Your task to perform on an android device: Open Youtube and go to "Your channel" Image 0: 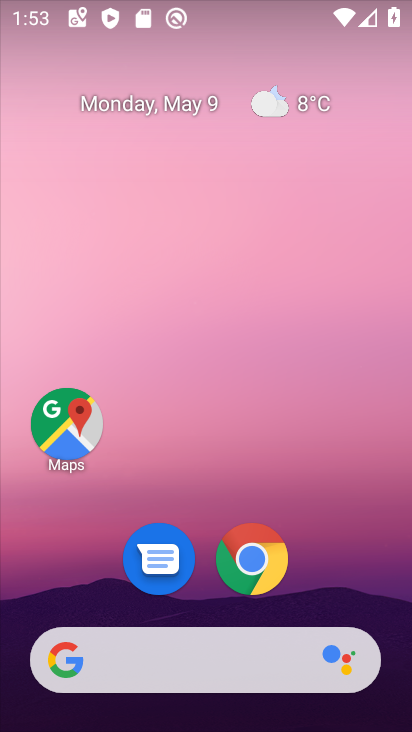
Step 0: drag from (320, 573) to (225, 140)
Your task to perform on an android device: Open Youtube and go to "Your channel" Image 1: 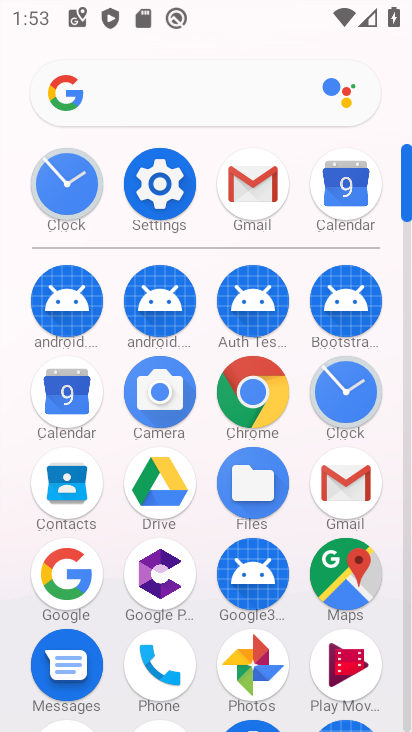
Step 1: click (404, 639)
Your task to perform on an android device: Open Youtube and go to "Your channel" Image 2: 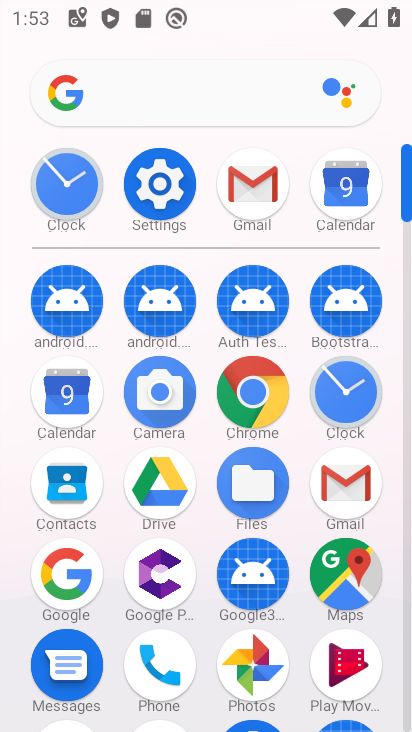
Step 2: click (404, 639)
Your task to perform on an android device: Open Youtube and go to "Your channel" Image 3: 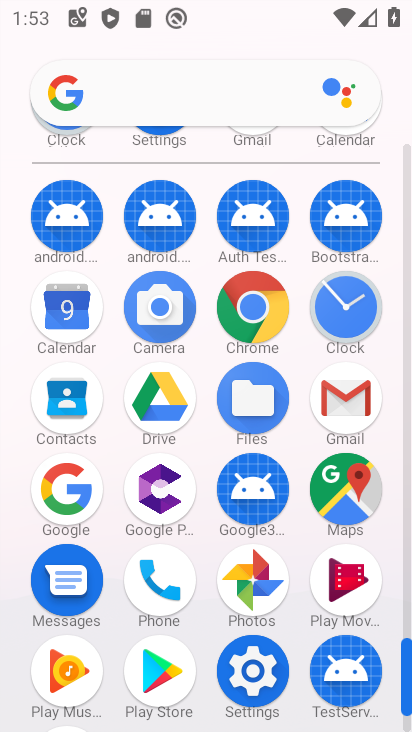
Step 3: drag from (220, 560) to (180, 182)
Your task to perform on an android device: Open Youtube and go to "Your channel" Image 4: 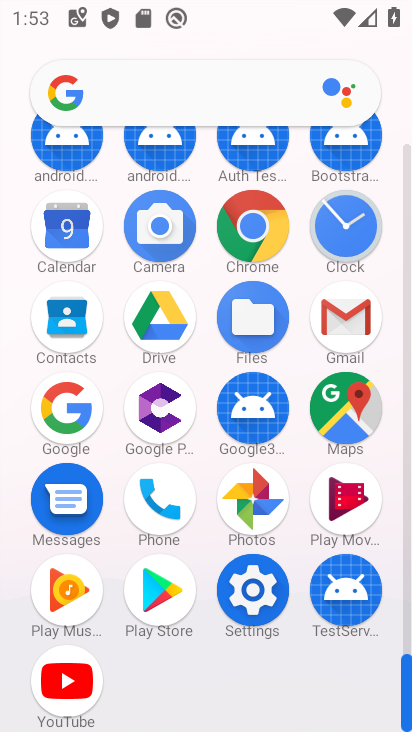
Step 4: click (58, 676)
Your task to perform on an android device: Open Youtube and go to "Your channel" Image 5: 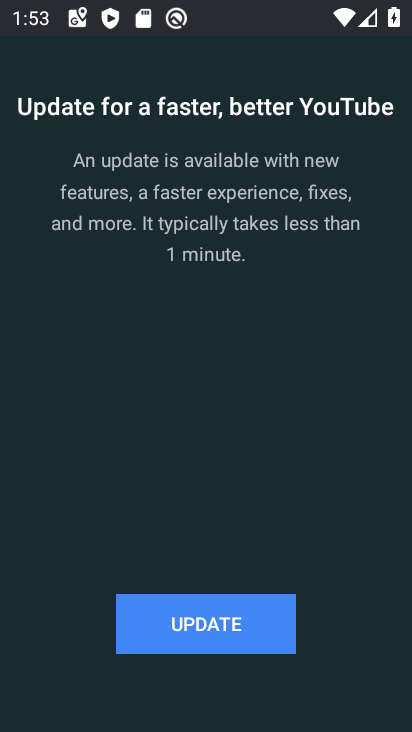
Step 5: click (192, 635)
Your task to perform on an android device: Open Youtube and go to "Your channel" Image 6: 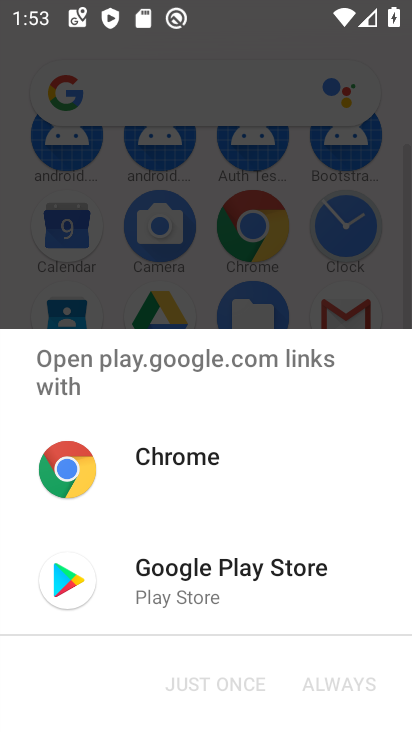
Step 6: click (139, 467)
Your task to perform on an android device: Open Youtube and go to "Your channel" Image 7: 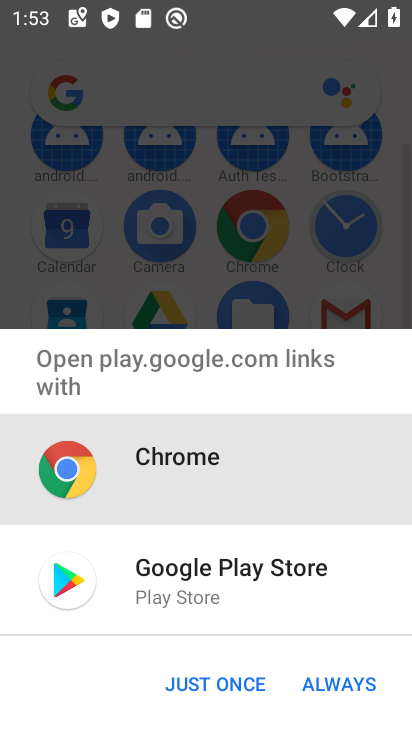
Step 7: click (142, 585)
Your task to perform on an android device: Open Youtube and go to "Your channel" Image 8: 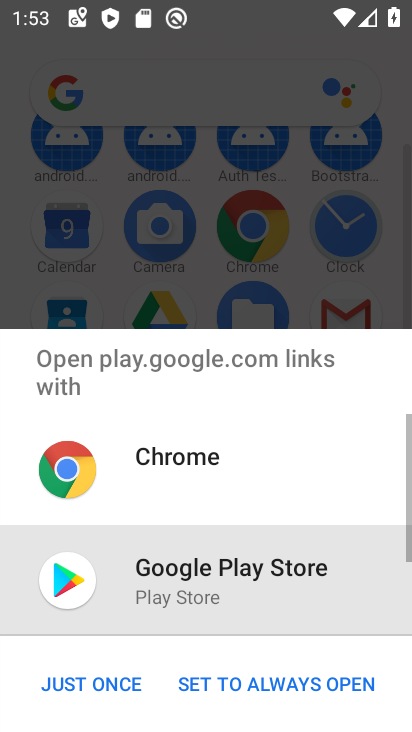
Step 8: click (150, 579)
Your task to perform on an android device: Open Youtube and go to "Your channel" Image 9: 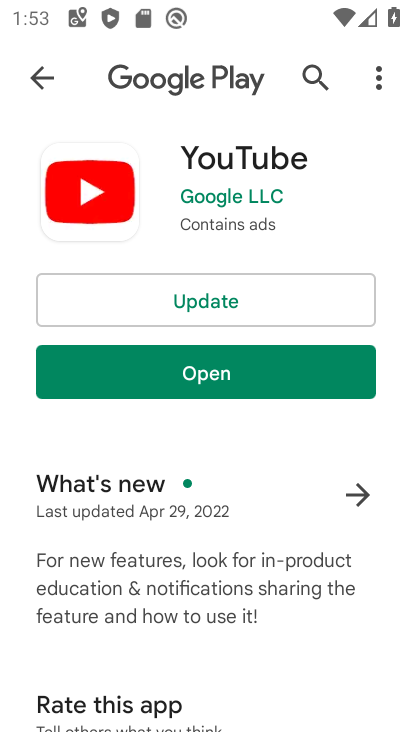
Step 9: click (198, 295)
Your task to perform on an android device: Open Youtube and go to "Your channel" Image 10: 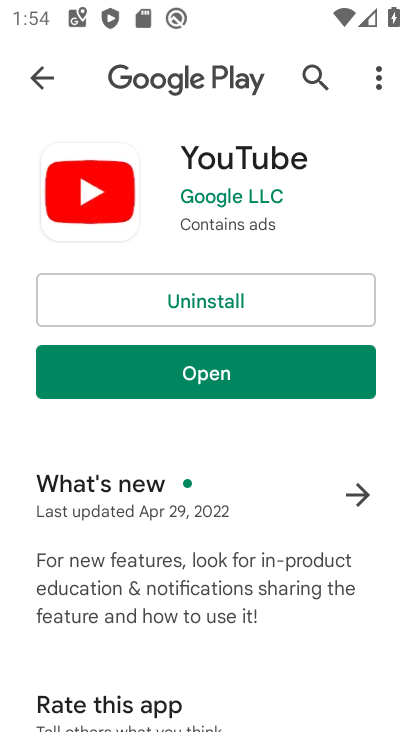
Step 10: click (199, 371)
Your task to perform on an android device: Open Youtube and go to "Your channel" Image 11: 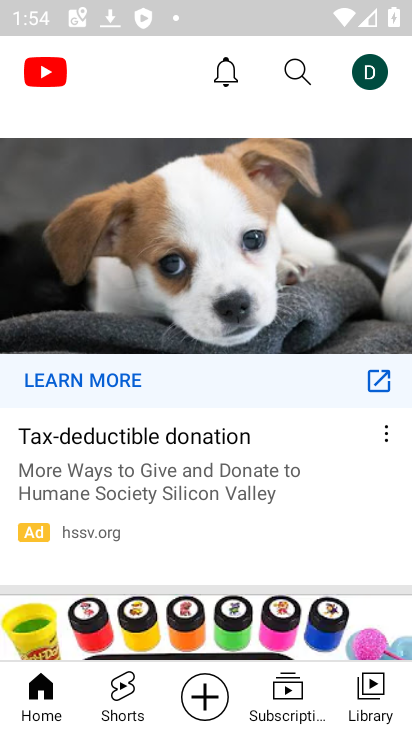
Step 11: click (372, 68)
Your task to perform on an android device: Open Youtube and go to "Your channel" Image 12: 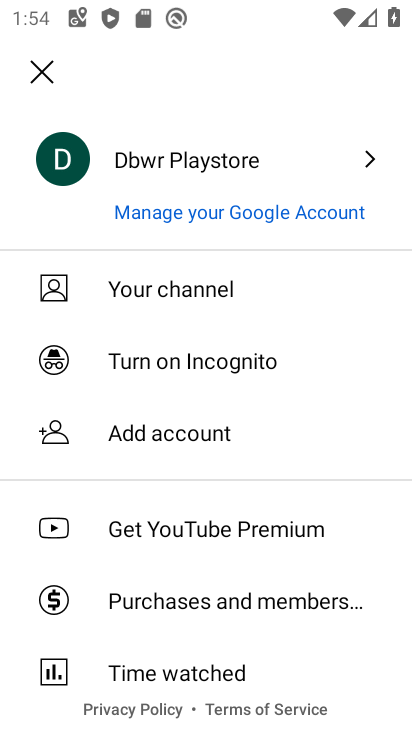
Step 12: click (124, 293)
Your task to perform on an android device: Open Youtube and go to "Your channel" Image 13: 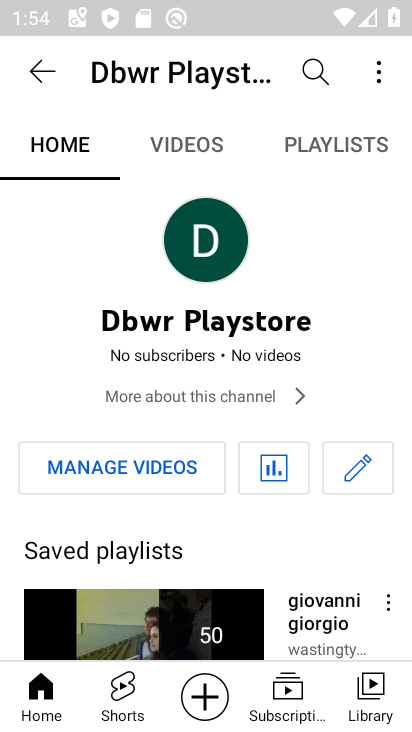
Step 13: task complete